Your task to perform on an android device: Open settings Image 0: 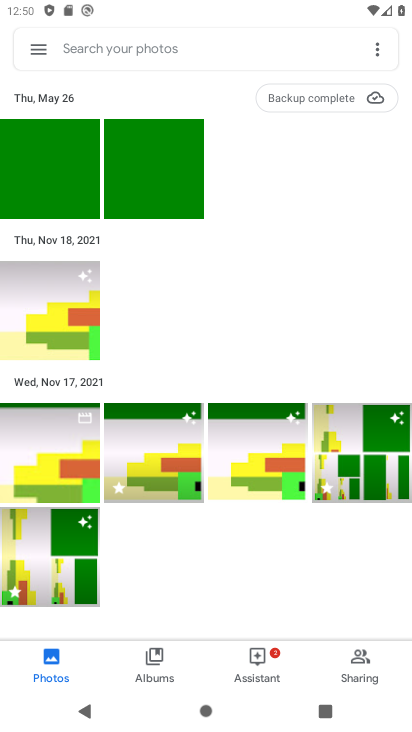
Step 0: press home button
Your task to perform on an android device: Open settings Image 1: 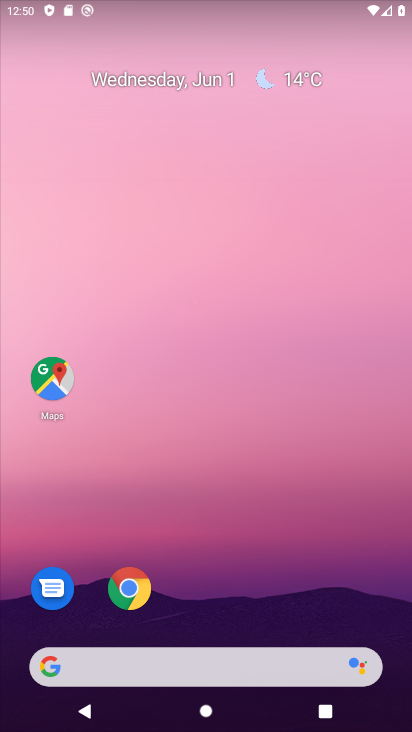
Step 1: drag from (275, 575) to (185, 73)
Your task to perform on an android device: Open settings Image 2: 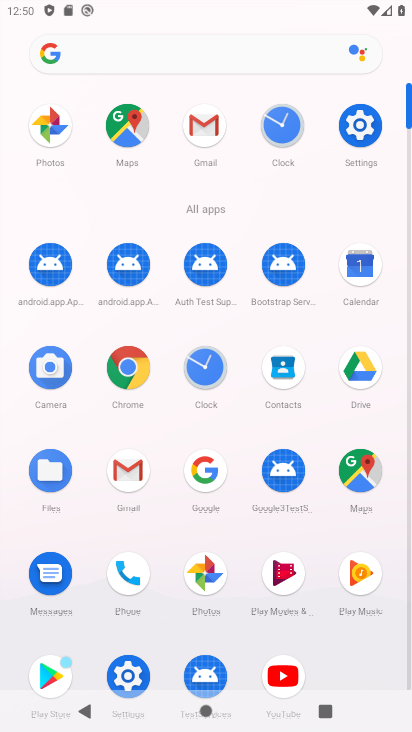
Step 2: click (361, 132)
Your task to perform on an android device: Open settings Image 3: 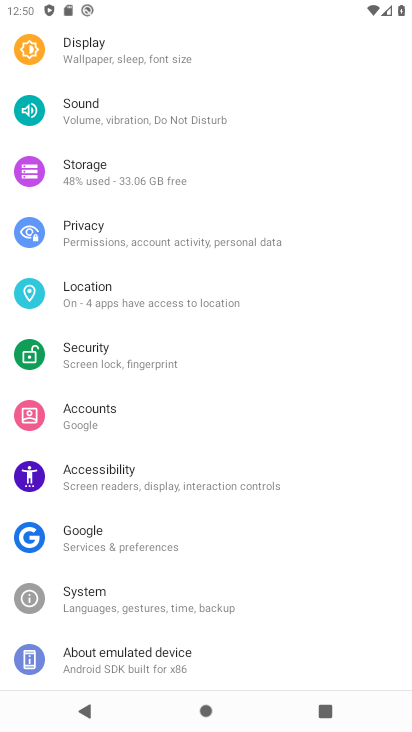
Step 3: task complete